Your task to perform on an android device: Open notification settings Image 0: 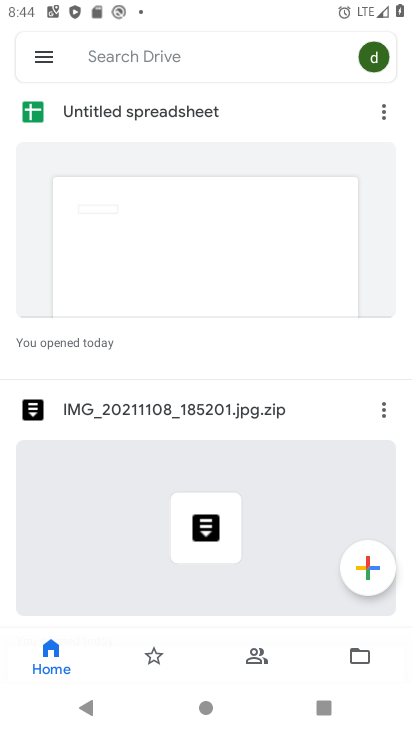
Step 0: press home button
Your task to perform on an android device: Open notification settings Image 1: 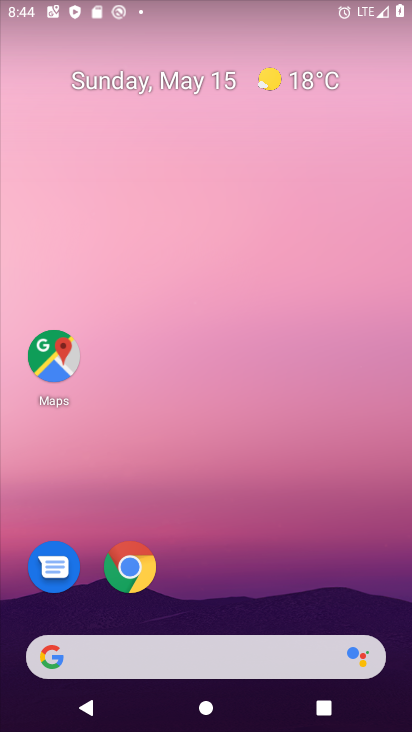
Step 1: drag from (143, 708) to (252, 20)
Your task to perform on an android device: Open notification settings Image 2: 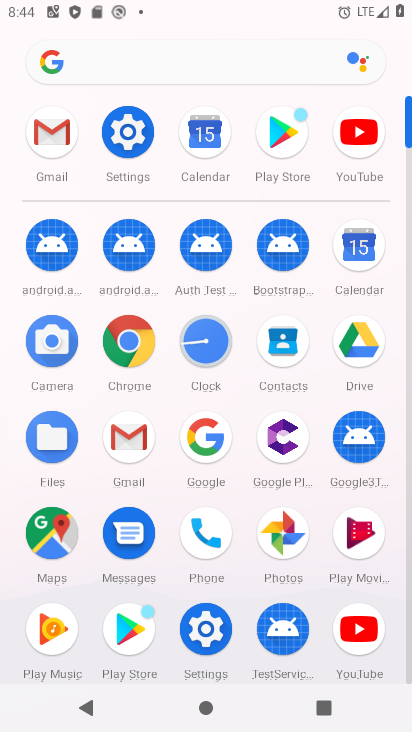
Step 2: click (117, 144)
Your task to perform on an android device: Open notification settings Image 3: 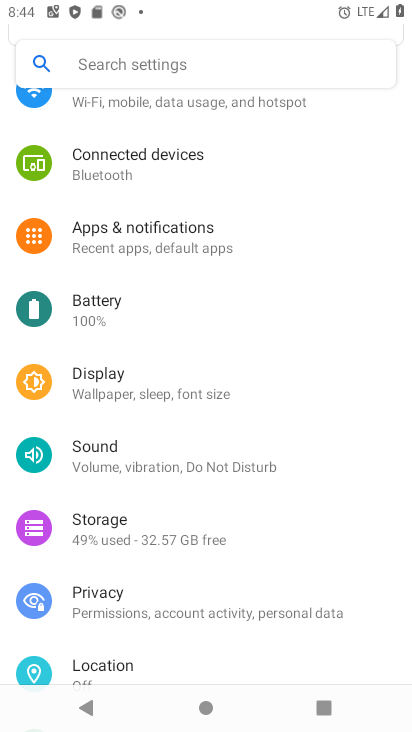
Step 3: click (254, 234)
Your task to perform on an android device: Open notification settings Image 4: 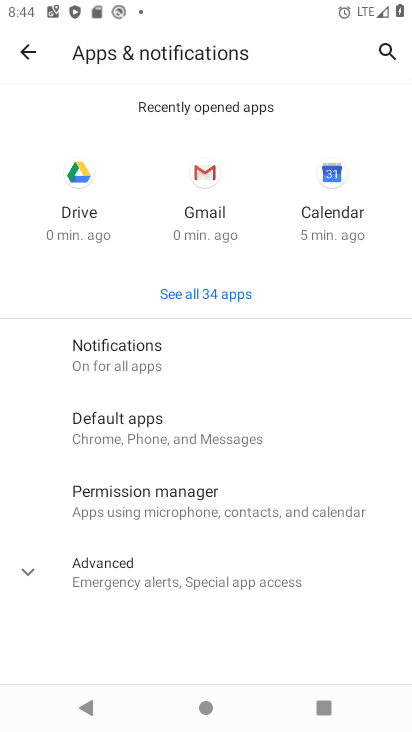
Step 4: task complete